Your task to perform on an android device: Open settings on Google Maps Image 0: 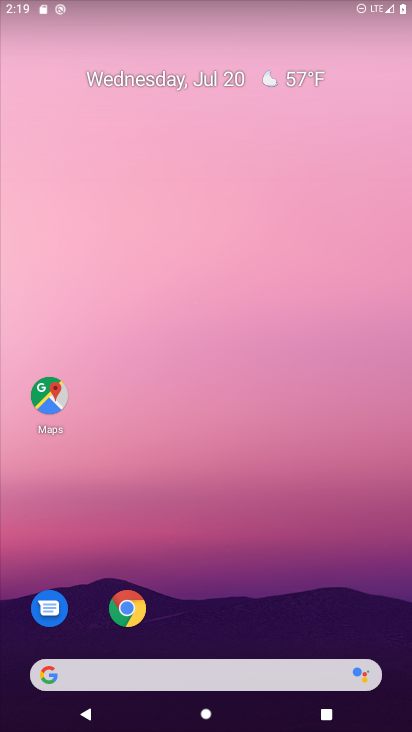
Step 0: drag from (234, 710) to (231, 129)
Your task to perform on an android device: Open settings on Google Maps Image 1: 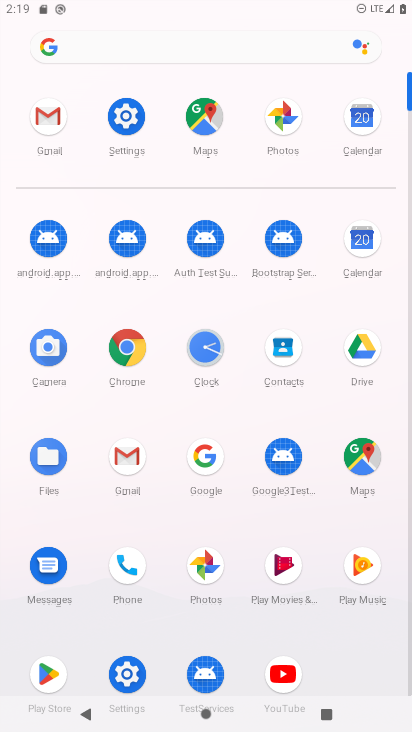
Step 1: click (359, 458)
Your task to perform on an android device: Open settings on Google Maps Image 2: 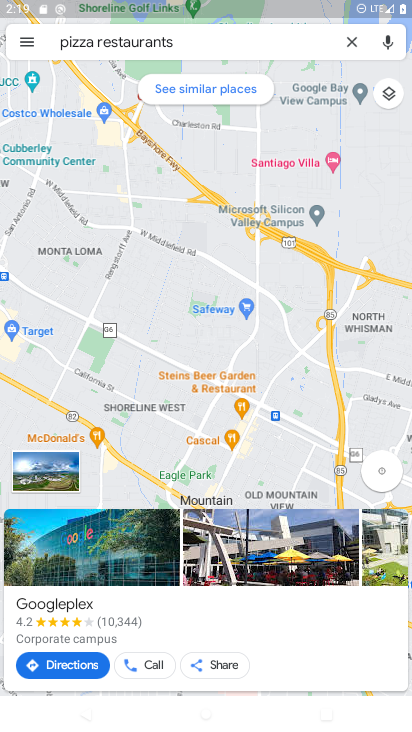
Step 2: click (22, 43)
Your task to perform on an android device: Open settings on Google Maps Image 3: 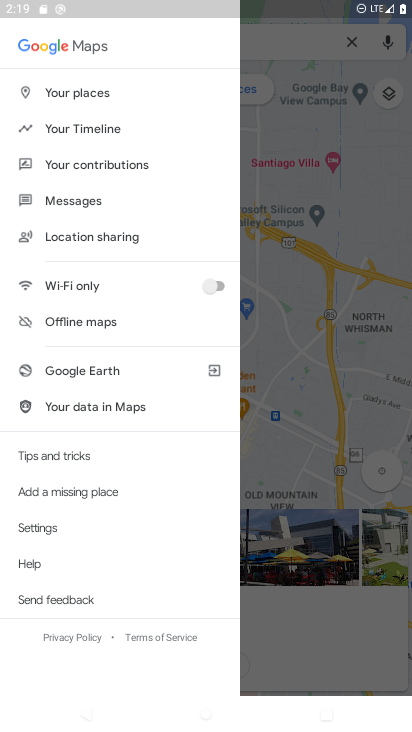
Step 3: click (40, 523)
Your task to perform on an android device: Open settings on Google Maps Image 4: 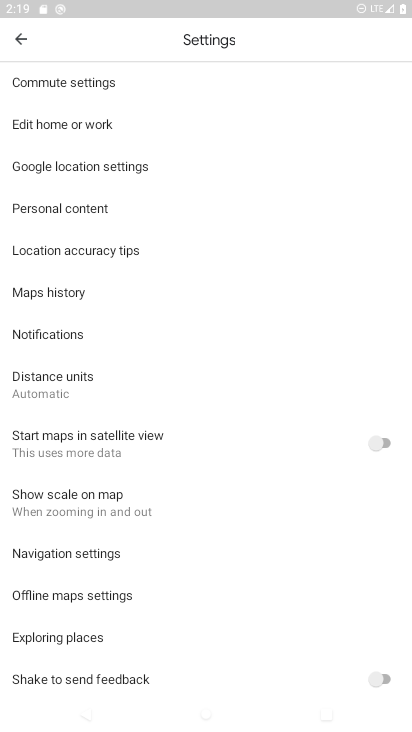
Step 4: task complete